Your task to perform on an android device: Search for pizza restaurants on Maps Image 0: 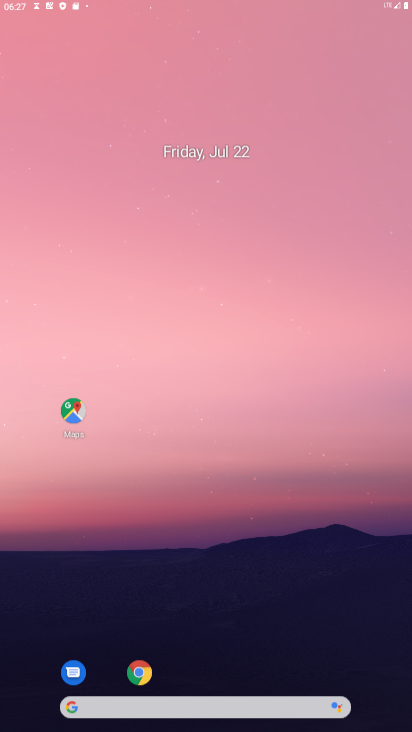
Step 0: press home button
Your task to perform on an android device: Search for pizza restaurants on Maps Image 1: 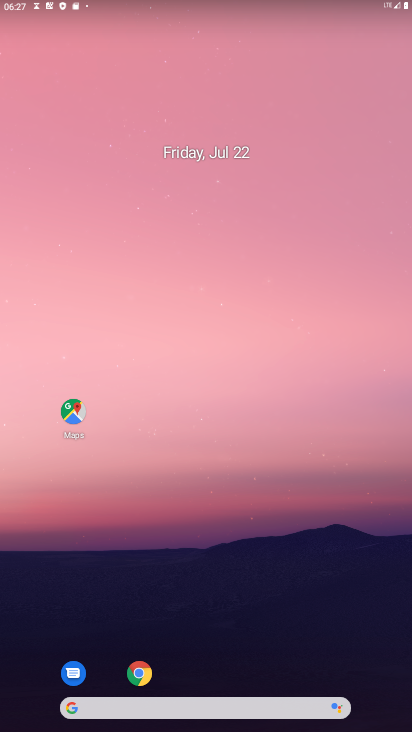
Step 1: drag from (233, 666) to (272, 204)
Your task to perform on an android device: Search for pizza restaurants on Maps Image 2: 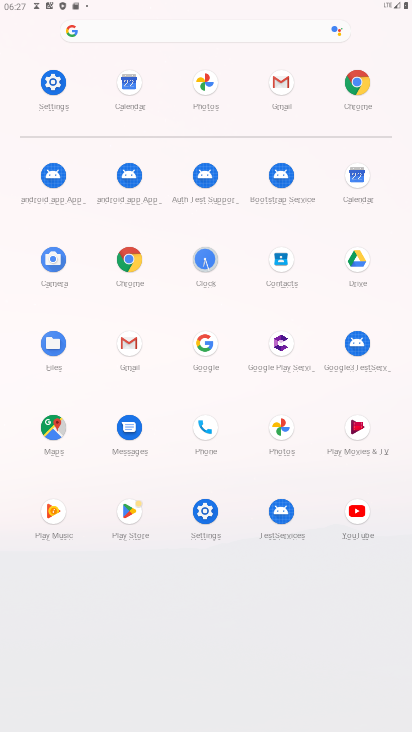
Step 2: click (56, 436)
Your task to perform on an android device: Search for pizza restaurants on Maps Image 3: 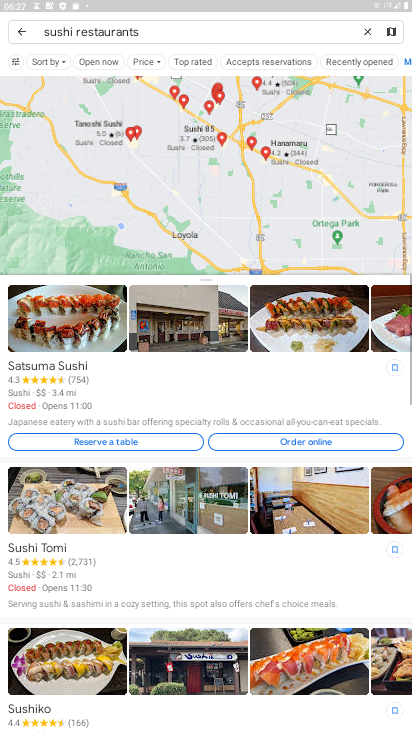
Step 3: click (368, 35)
Your task to perform on an android device: Search for pizza restaurants on Maps Image 4: 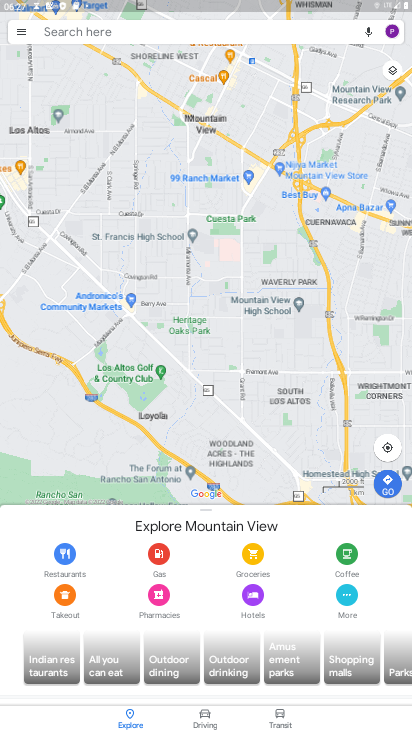
Step 4: click (140, 23)
Your task to perform on an android device: Search for pizza restaurants on Maps Image 5: 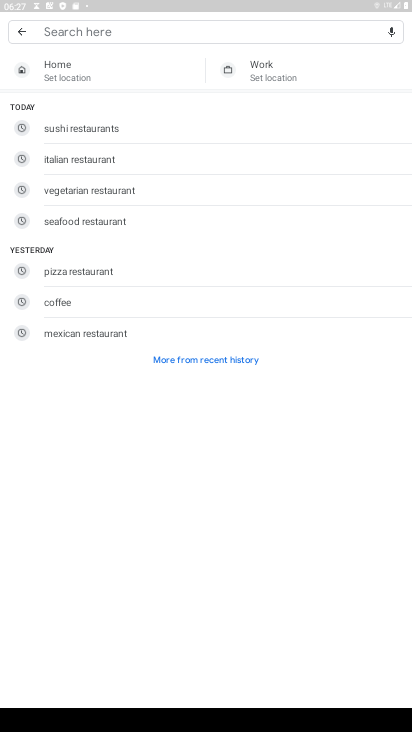
Step 5: click (63, 277)
Your task to perform on an android device: Search for pizza restaurants on Maps Image 6: 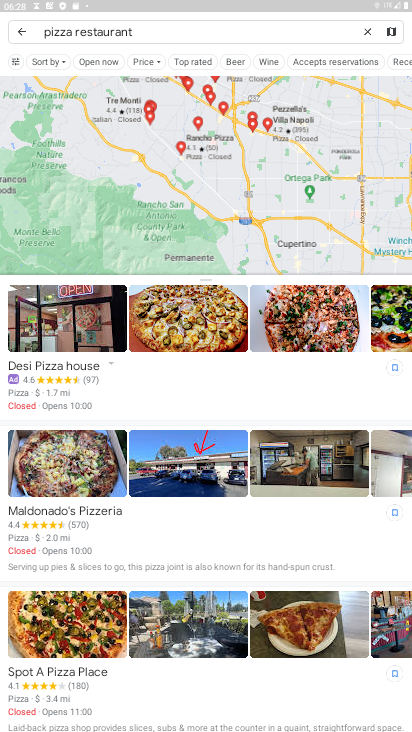
Step 6: task complete